Your task to perform on an android device: change notifications settings Image 0: 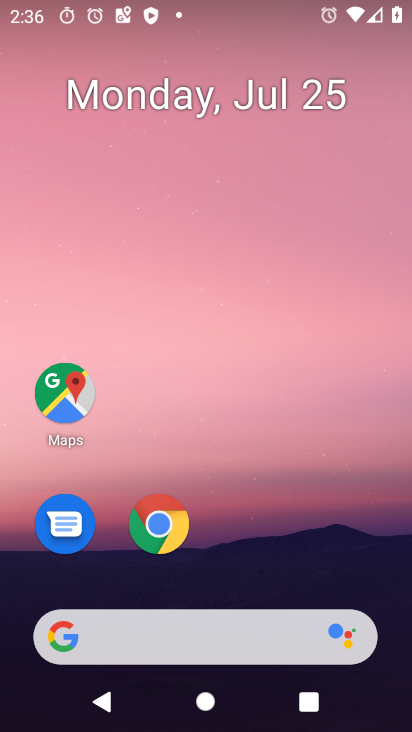
Step 0: press home button
Your task to perform on an android device: change notifications settings Image 1: 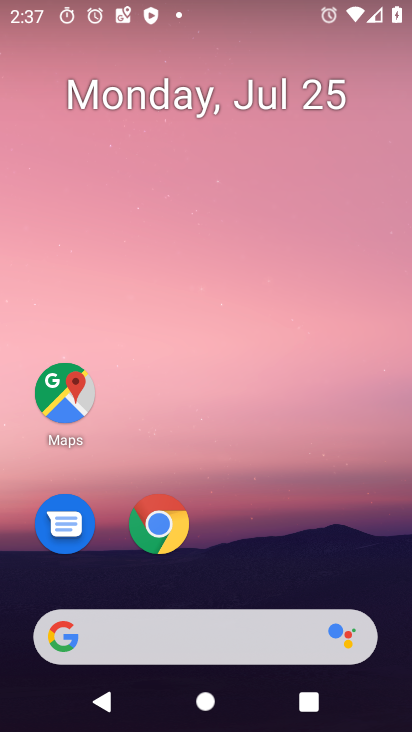
Step 1: drag from (248, 577) to (268, 227)
Your task to perform on an android device: change notifications settings Image 2: 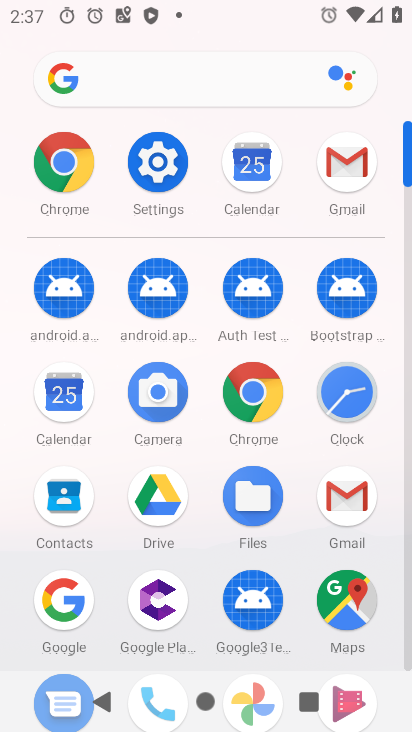
Step 2: click (168, 164)
Your task to perform on an android device: change notifications settings Image 3: 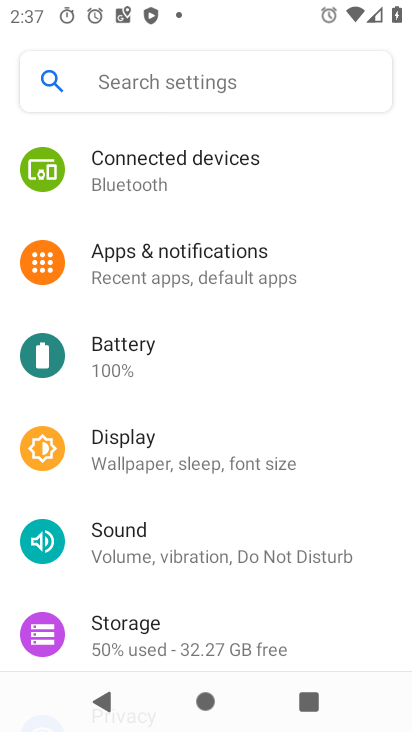
Step 3: click (158, 254)
Your task to perform on an android device: change notifications settings Image 4: 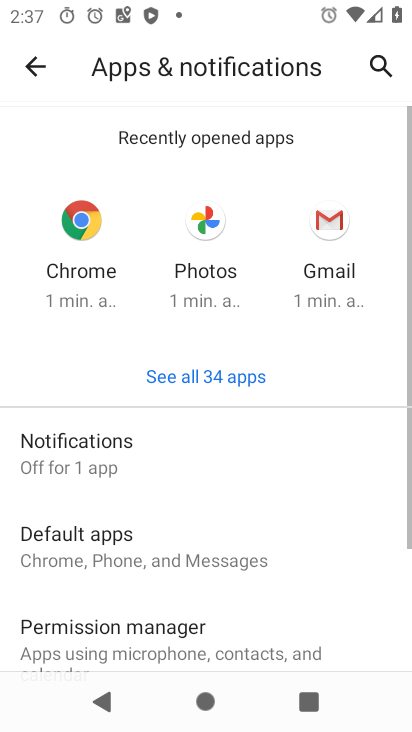
Step 4: click (103, 460)
Your task to perform on an android device: change notifications settings Image 5: 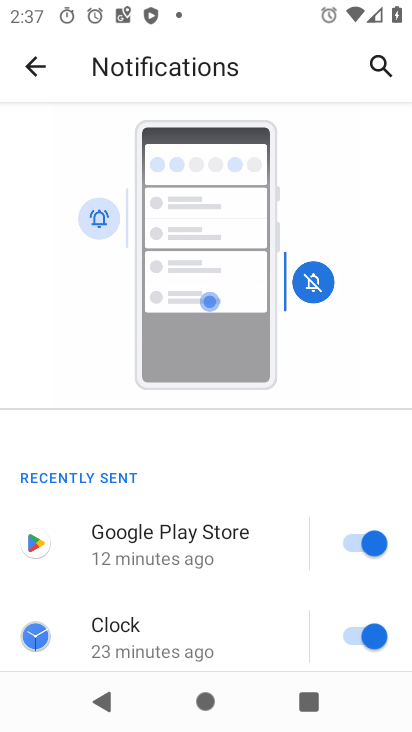
Step 5: drag from (285, 632) to (249, 80)
Your task to perform on an android device: change notifications settings Image 6: 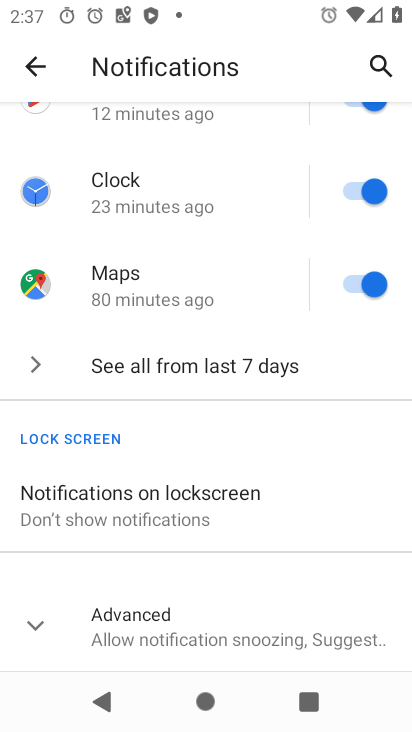
Step 6: click (137, 516)
Your task to perform on an android device: change notifications settings Image 7: 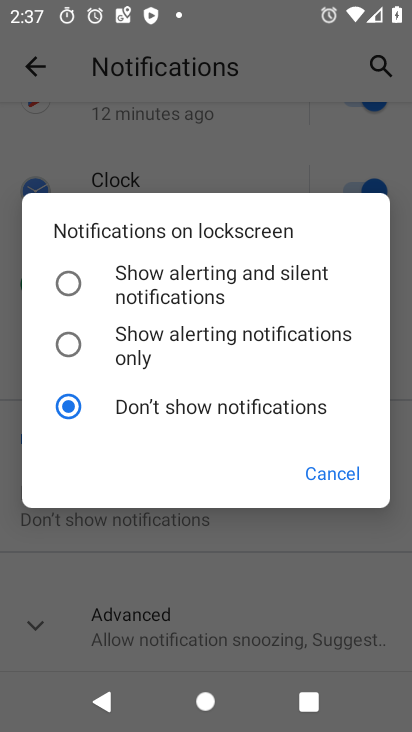
Step 7: click (76, 287)
Your task to perform on an android device: change notifications settings Image 8: 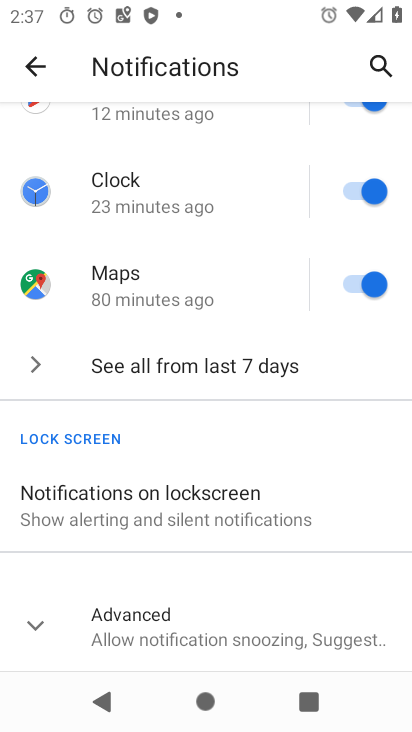
Step 8: task complete